Your task to perform on an android device: Show me the alarms in the clock app Image 0: 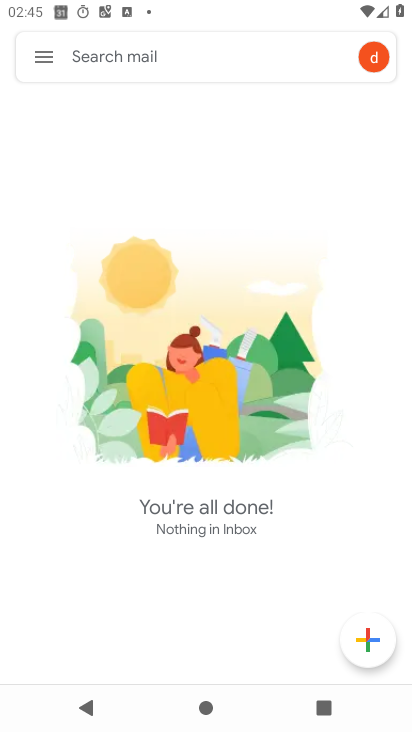
Step 0: press home button
Your task to perform on an android device: Show me the alarms in the clock app Image 1: 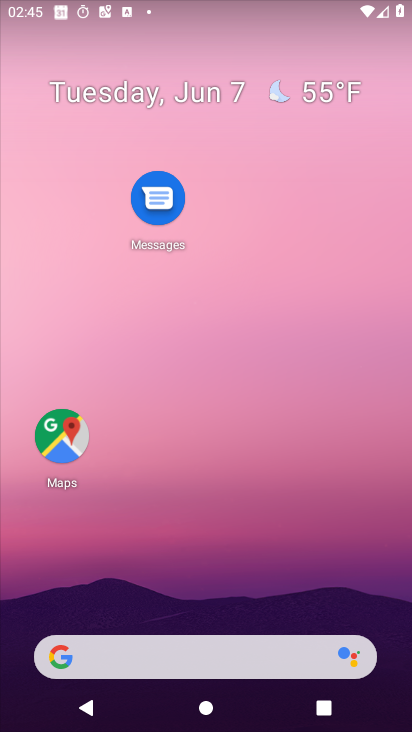
Step 1: drag from (200, 551) to (210, 16)
Your task to perform on an android device: Show me the alarms in the clock app Image 2: 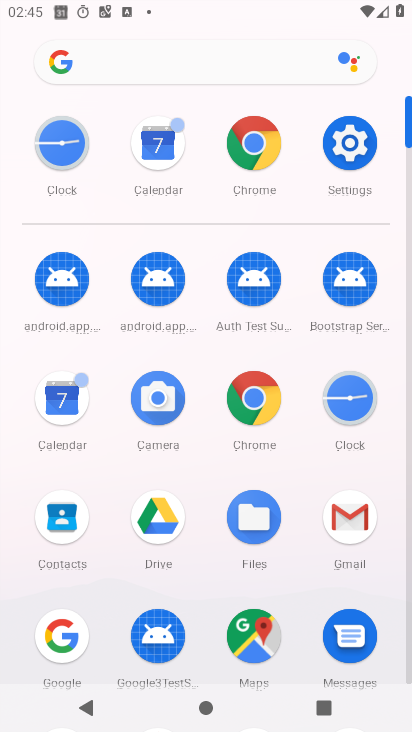
Step 2: click (60, 172)
Your task to perform on an android device: Show me the alarms in the clock app Image 3: 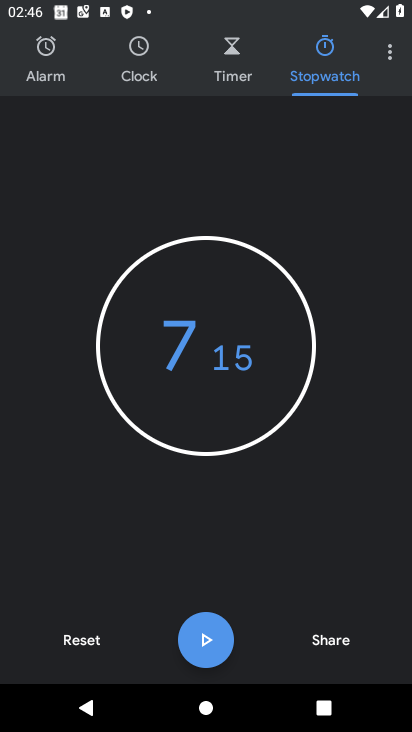
Step 3: click (51, 55)
Your task to perform on an android device: Show me the alarms in the clock app Image 4: 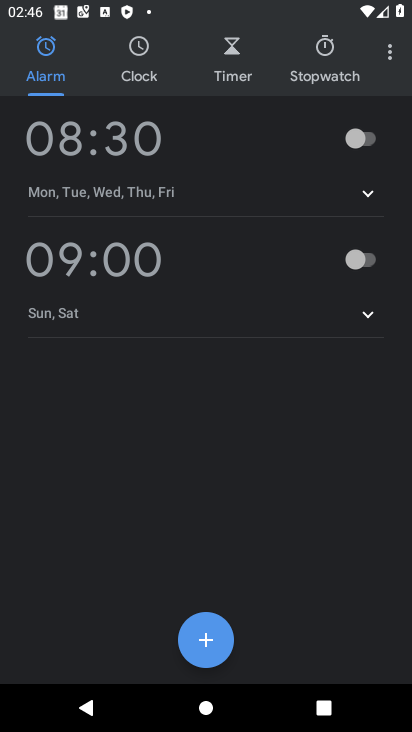
Step 4: task complete